Your task to perform on an android device: clear history in the chrome app Image 0: 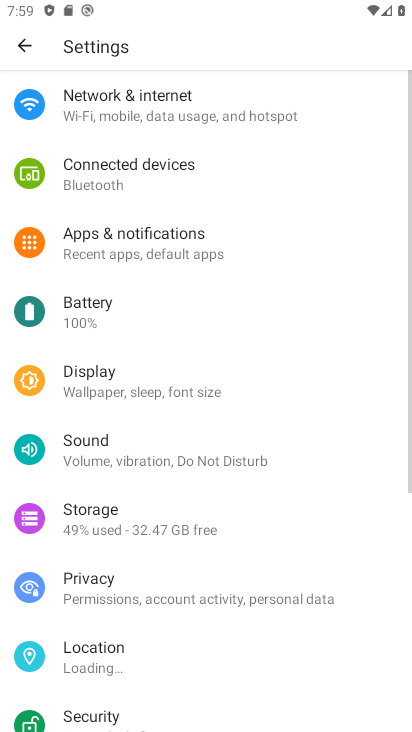
Step 0: press home button
Your task to perform on an android device: clear history in the chrome app Image 1: 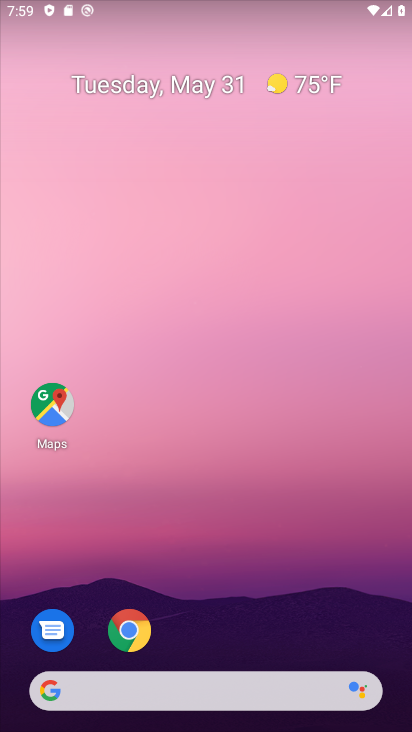
Step 1: drag from (280, 624) to (260, 198)
Your task to perform on an android device: clear history in the chrome app Image 2: 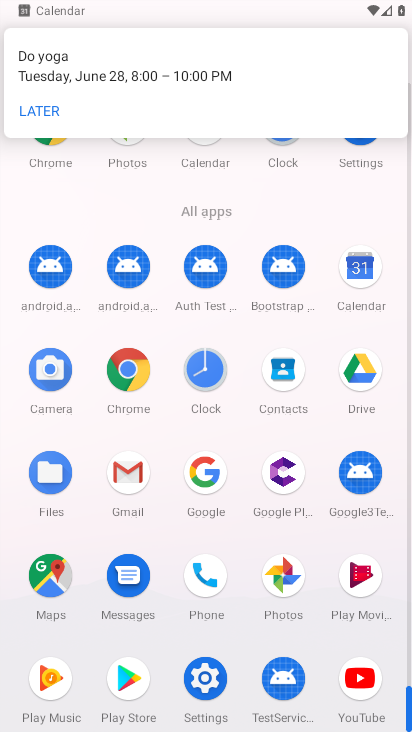
Step 2: click (125, 402)
Your task to perform on an android device: clear history in the chrome app Image 3: 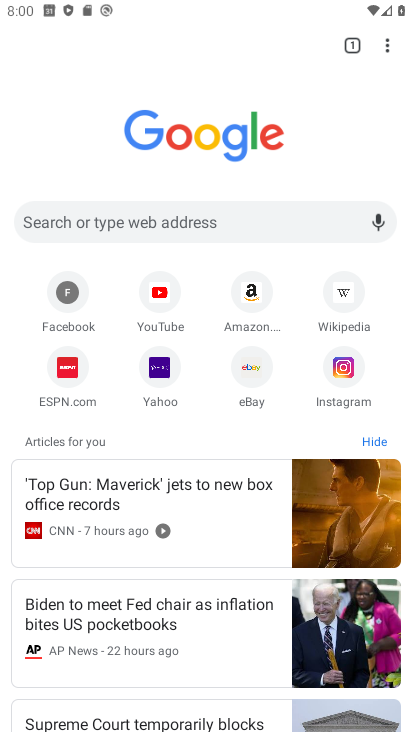
Step 3: click (391, 39)
Your task to perform on an android device: clear history in the chrome app Image 4: 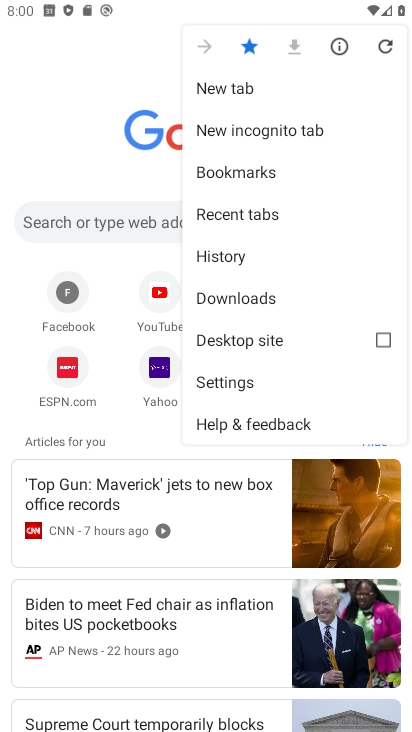
Step 4: click (232, 256)
Your task to perform on an android device: clear history in the chrome app Image 5: 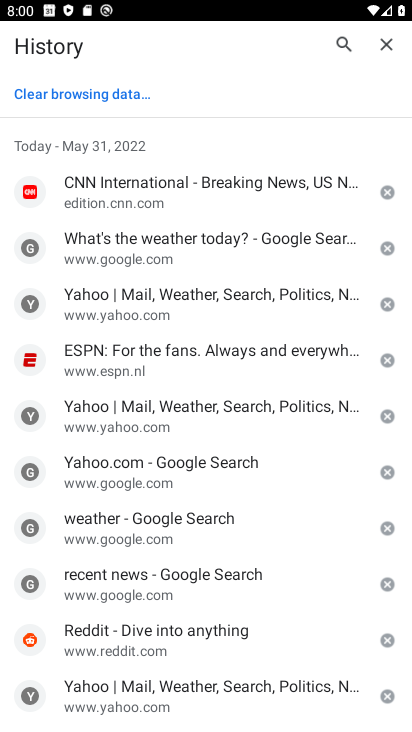
Step 5: click (111, 93)
Your task to perform on an android device: clear history in the chrome app Image 6: 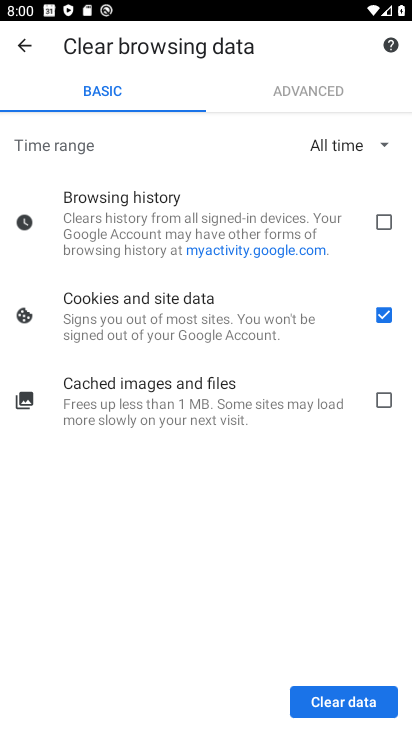
Step 6: click (385, 215)
Your task to perform on an android device: clear history in the chrome app Image 7: 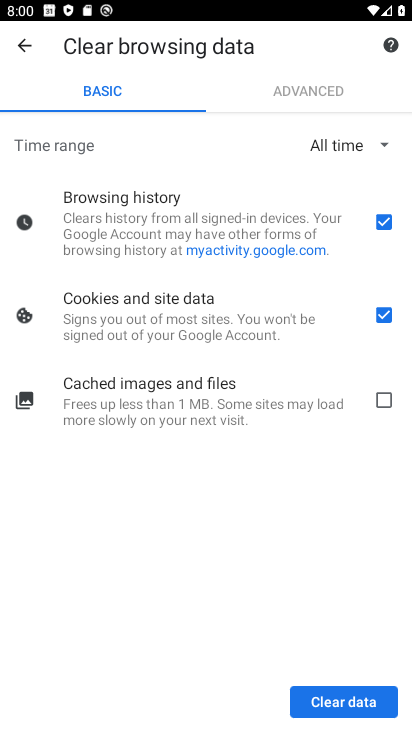
Step 7: click (387, 311)
Your task to perform on an android device: clear history in the chrome app Image 8: 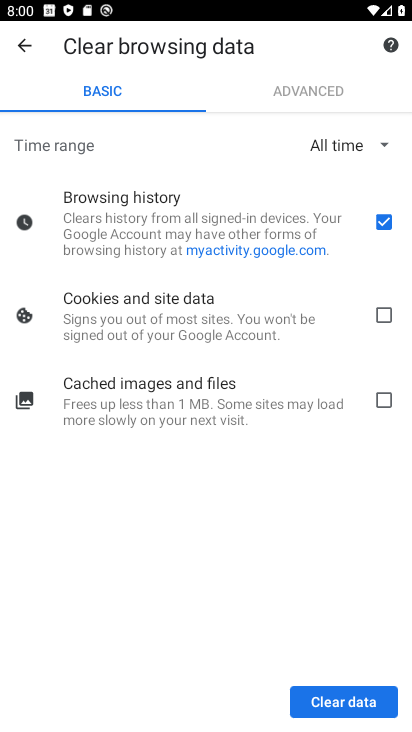
Step 8: click (329, 705)
Your task to perform on an android device: clear history in the chrome app Image 9: 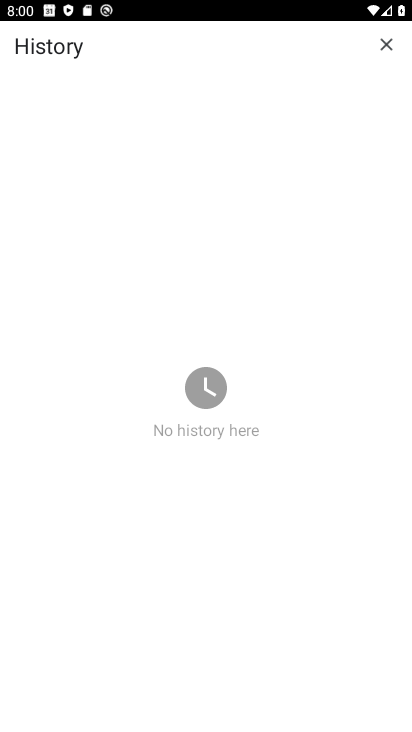
Step 9: task complete